Your task to perform on an android device: When is my next meeting? Image 0: 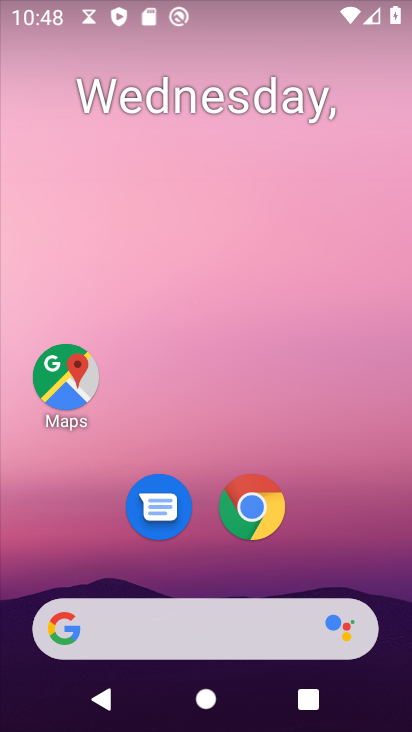
Step 0: drag from (283, 665) to (221, 210)
Your task to perform on an android device: When is my next meeting? Image 1: 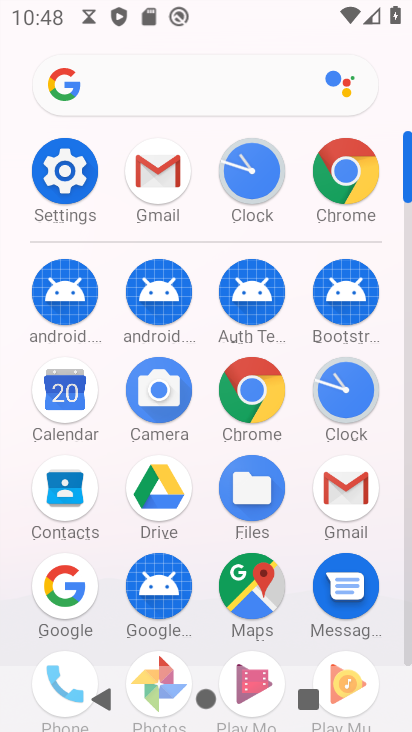
Step 1: click (56, 379)
Your task to perform on an android device: When is my next meeting? Image 2: 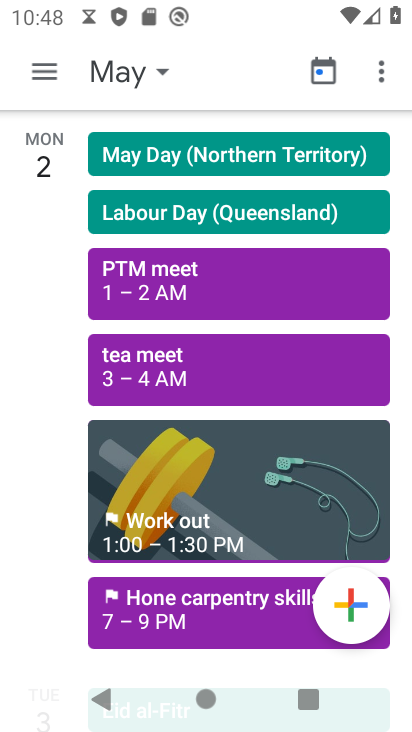
Step 2: click (28, 80)
Your task to perform on an android device: When is my next meeting? Image 3: 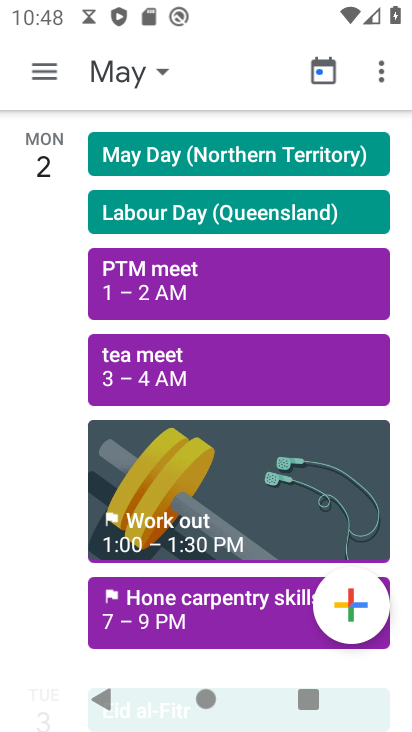
Step 3: click (31, 60)
Your task to perform on an android device: When is my next meeting? Image 4: 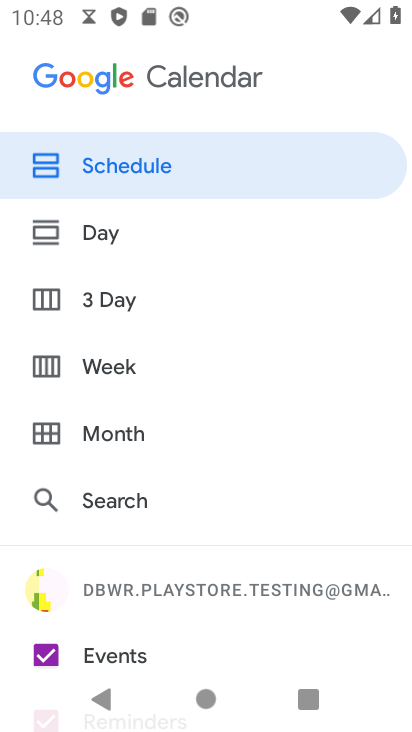
Step 4: click (127, 439)
Your task to perform on an android device: When is my next meeting? Image 5: 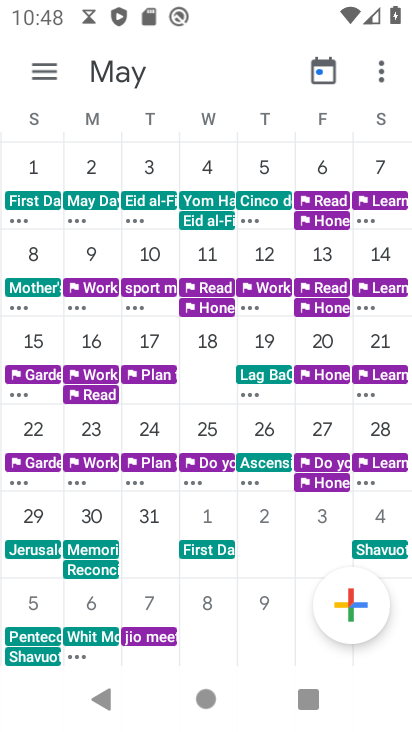
Step 5: drag from (43, 450) to (409, 241)
Your task to perform on an android device: When is my next meeting? Image 6: 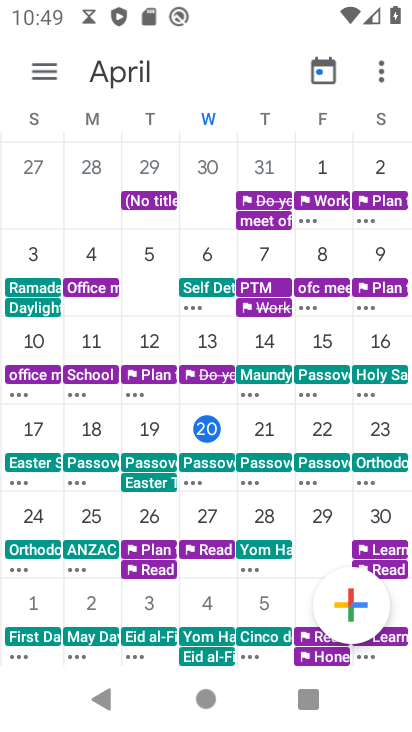
Step 6: click (49, 70)
Your task to perform on an android device: When is my next meeting? Image 7: 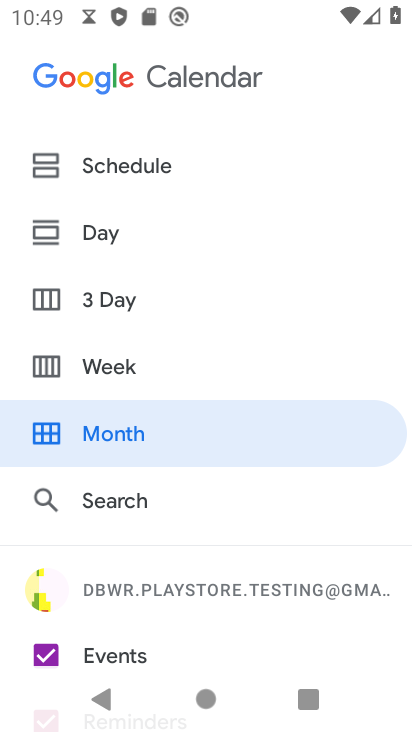
Step 7: click (114, 163)
Your task to perform on an android device: When is my next meeting? Image 8: 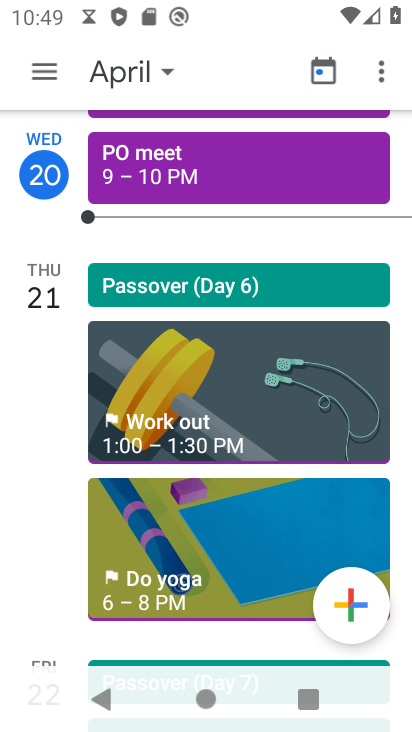
Step 8: task complete